Your task to perform on an android device: Show the shopping cart on amazon. Search for "dell xps" on amazon, select the first entry, and add it to the cart. Image 0: 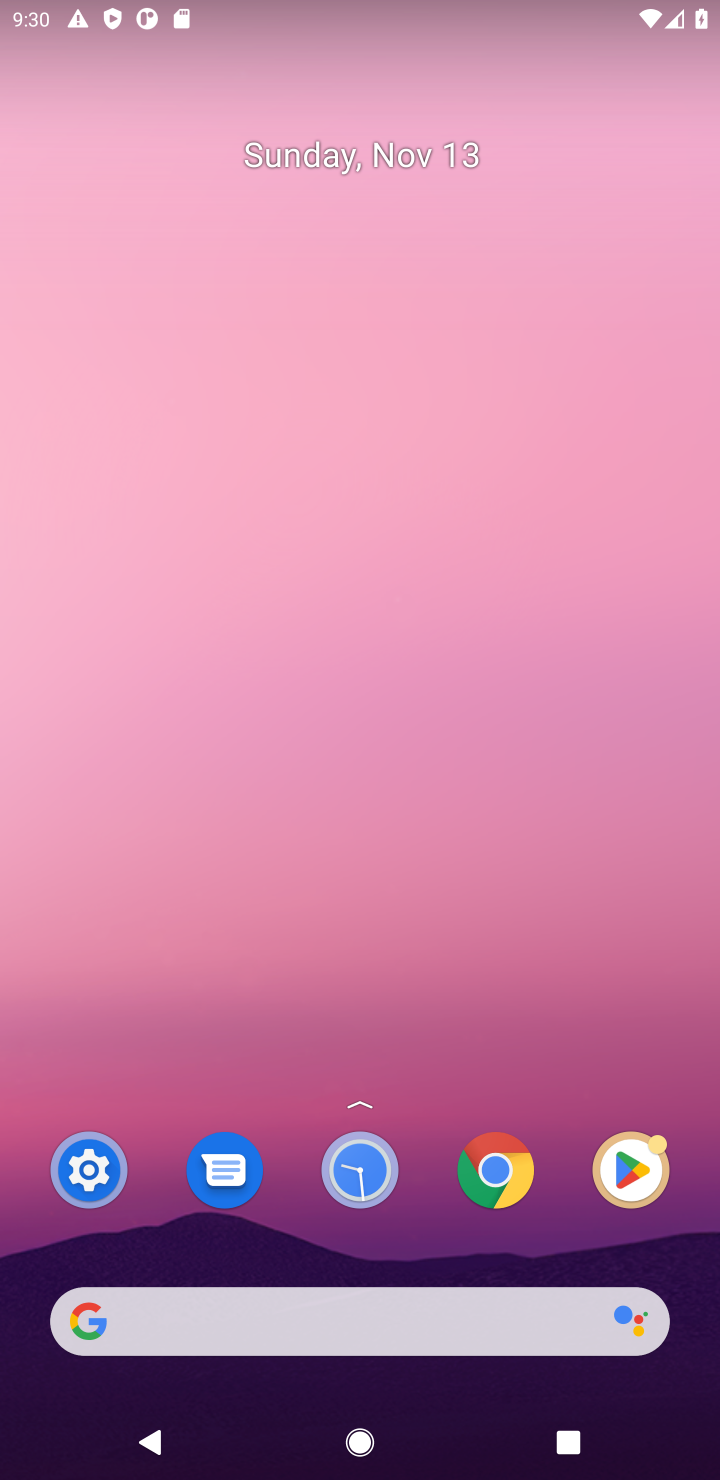
Step 0: click (338, 1316)
Your task to perform on an android device: Show the shopping cart on amazon. Search for "dell xps" on amazon, select the first entry, and add it to the cart. Image 1: 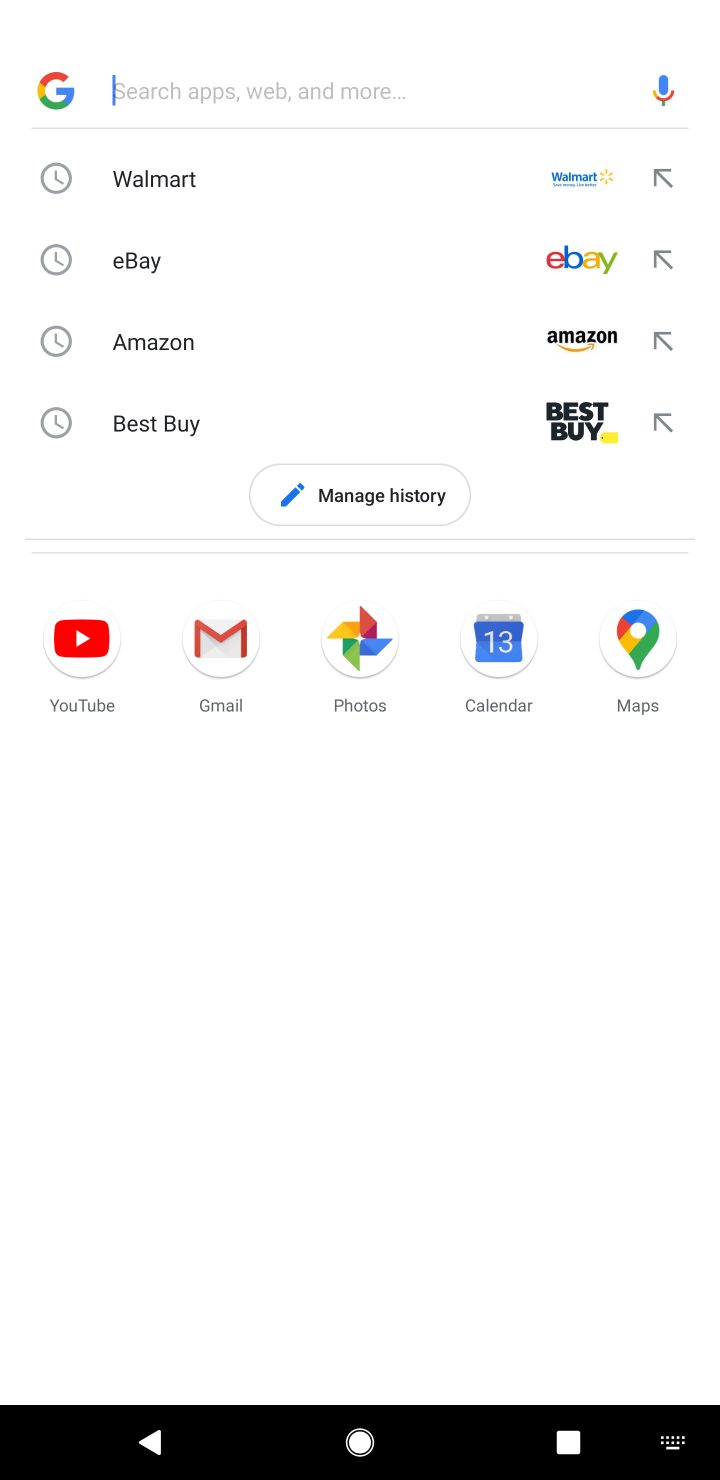
Step 1: click (238, 353)
Your task to perform on an android device: Show the shopping cart on amazon. Search for "dell xps" on amazon, select the first entry, and add it to the cart. Image 2: 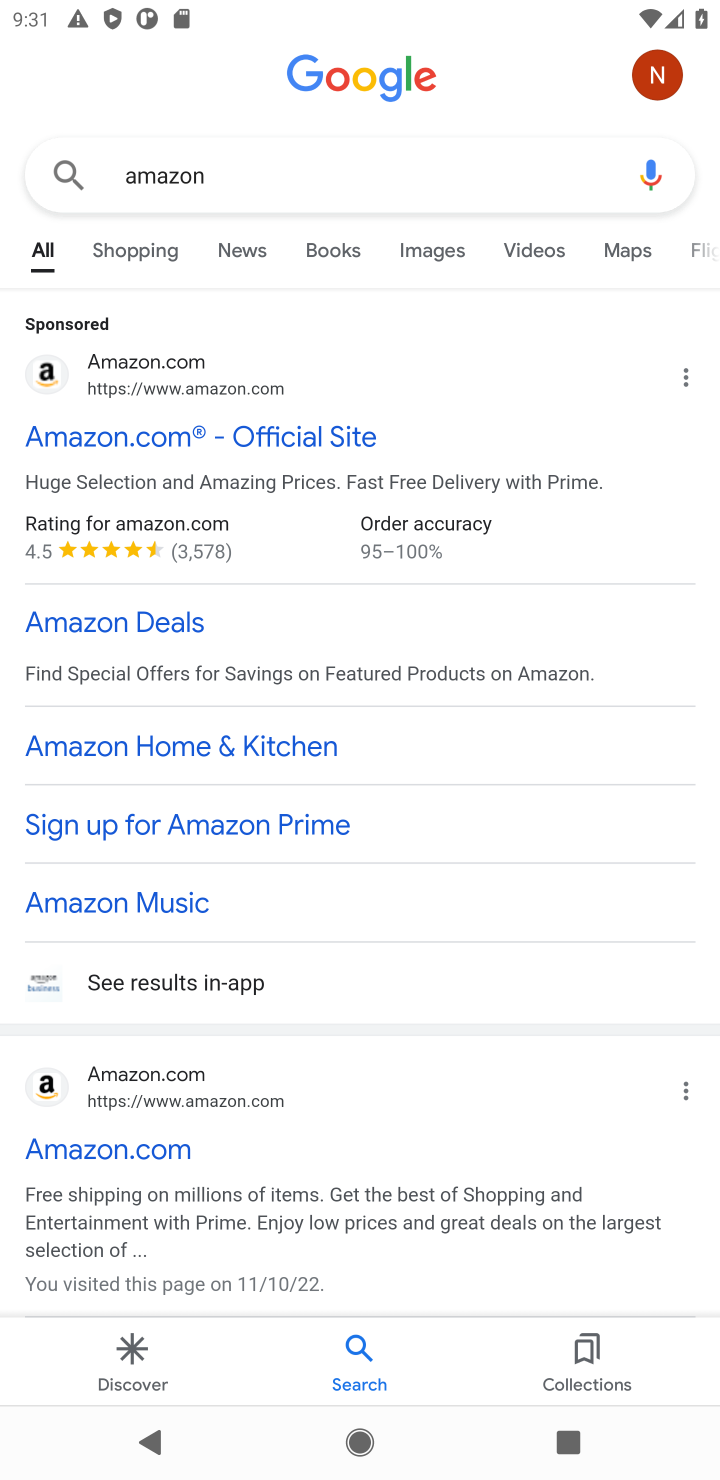
Step 2: click (174, 429)
Your task to perform on an android device: Show the shopping cart on amazon. Search for "dell xps" on amazon, select the first entry, and add it to the cart. Image 3: 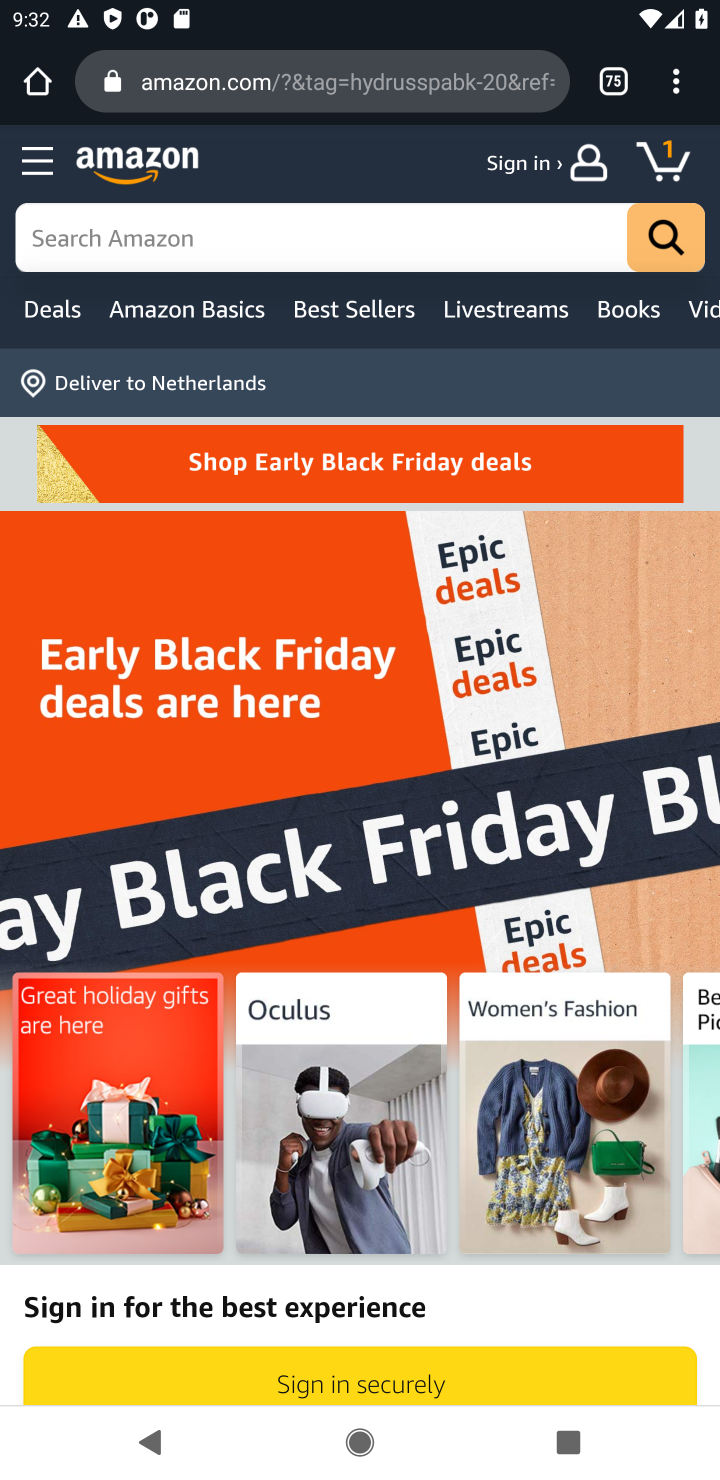
Step 3: task complete